Your task to perform on an android device: Go to Wikipedia Image 0: 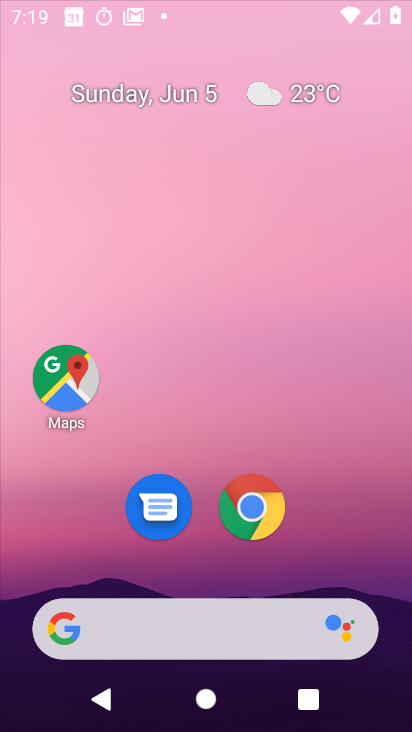
Step 0: click (209, 198)
Your task to perform on an android device: Go to Wikipedia Image 1: 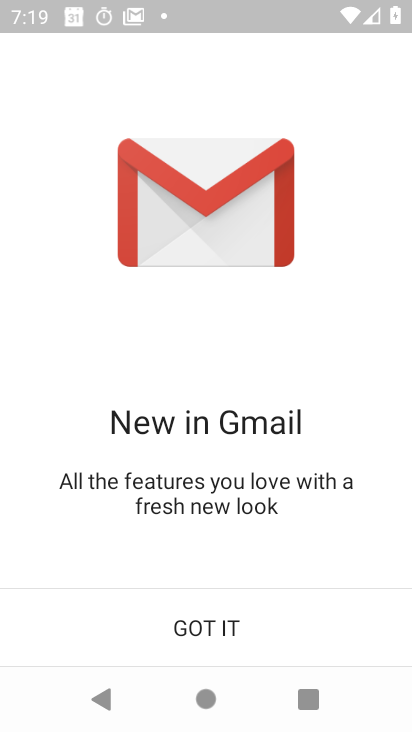
Step 1: press home button
Your task to perform on an android device: Go to Wikipedia Image 2: 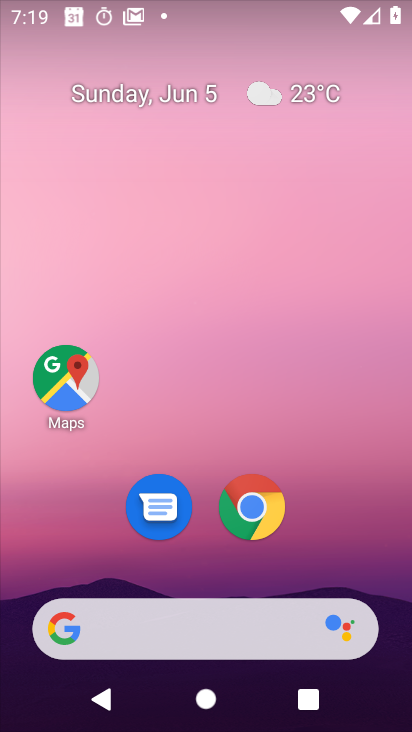
Step 2: drag from (236, 630) to (177, 82)
Your task to perform on an android device: Go to Wikipedia Image 3: 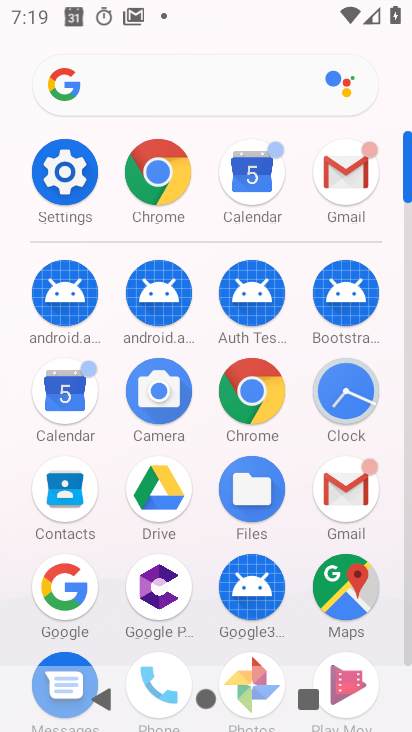
Step 3: click (166, 152)
Your task to perform on an android device: Go to Wikipedia Image 4: 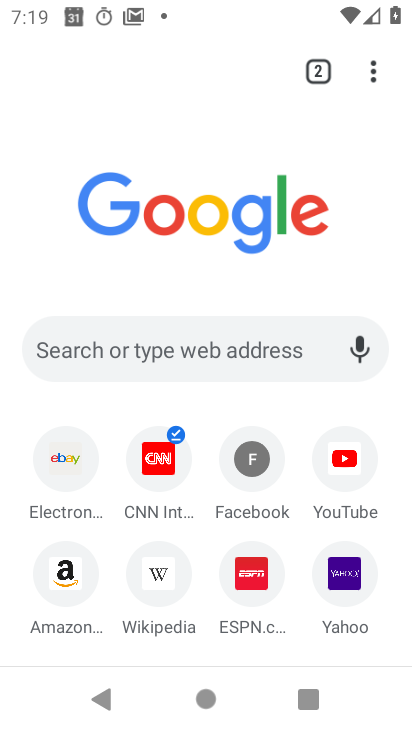
Step 4: click (144, 555)
Your task to perform on an android device: Go to Wikipedia Image 5: 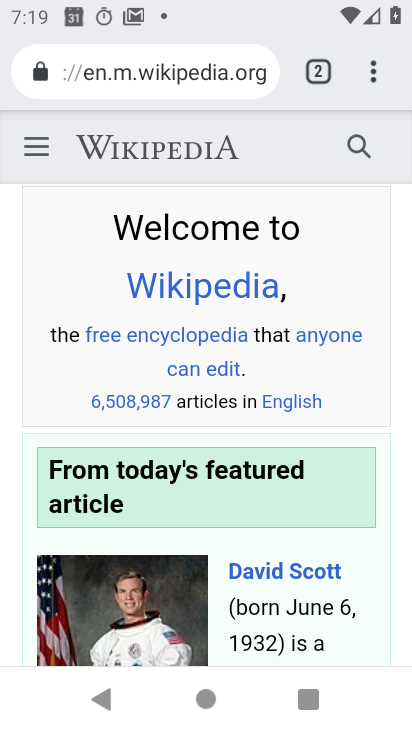
Step 5: task complete